Your task to perform on an android device: Is it going to rain today? Image 0: 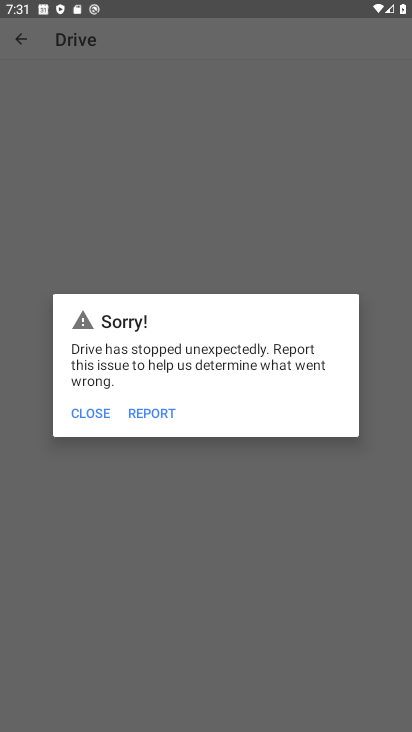
Step 0: press home button
Your task to perform on an android device: Is it going to rain today? Image 1: 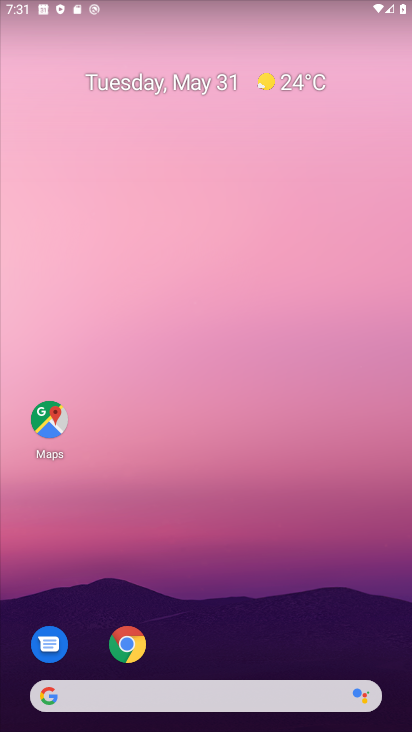
Step 1: drag from (333, 620) to (328, 133)
Your task to perform on an android device: Is it going to rain today? Image 2: 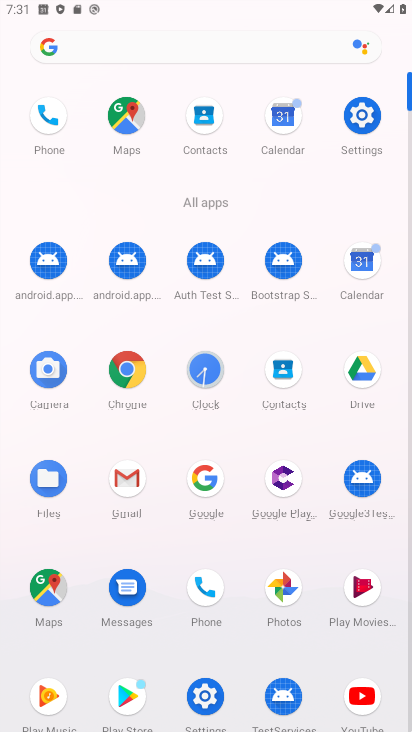
Step 2: click (134, 371)
Your task to perform on an android device: Is it going to rain today? Image 3: 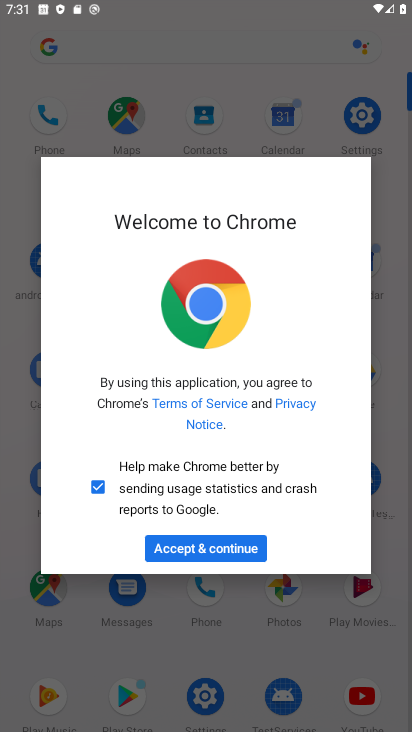
Step 3: click (225, 539)
Your task to perform on an android device: Is it going to rain today? Image 4: 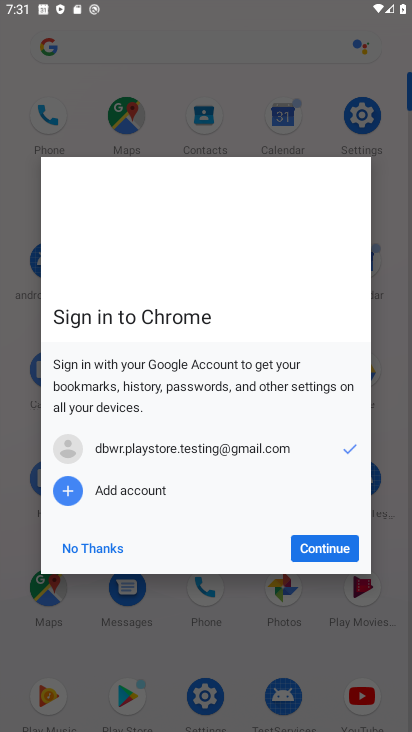
Step 4: click (327, 542)
Your task to perform on an android device: Is it going to rain today? Image 5: 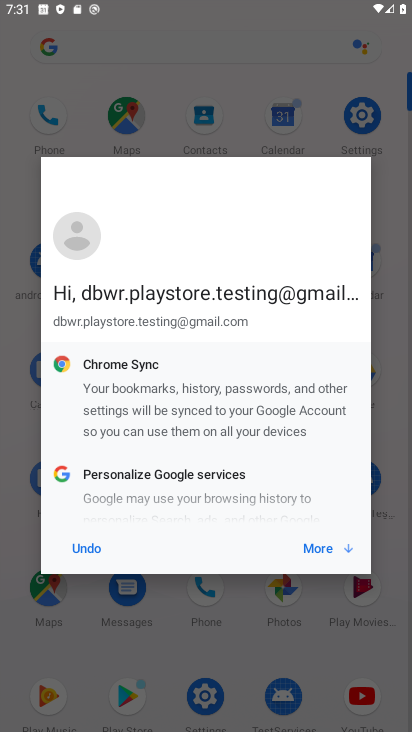
Step 5: click (321, 549)
Your task to perform on an android device: Is it going to rain today? Image 6: 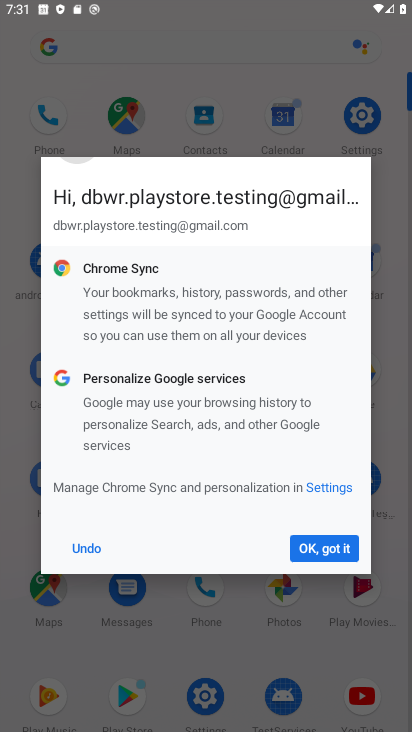
Step 6: click (321, 548)
Your task to perform on an android device: Is it going to rain today? Image 7: 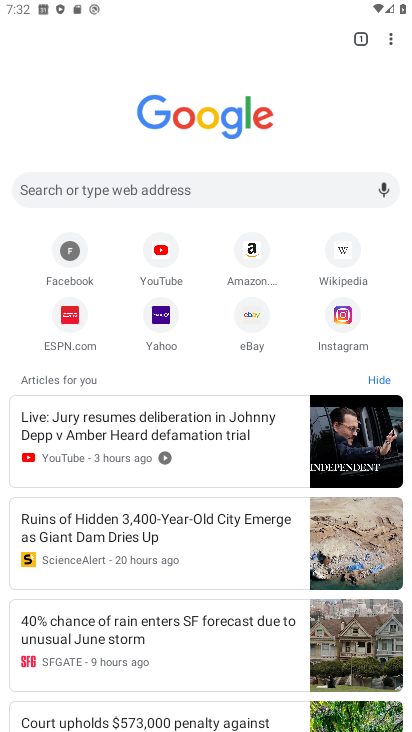
Step 7: click (313, 185)
Your task to perform on an android device: Is it going to rain today? Image 8: 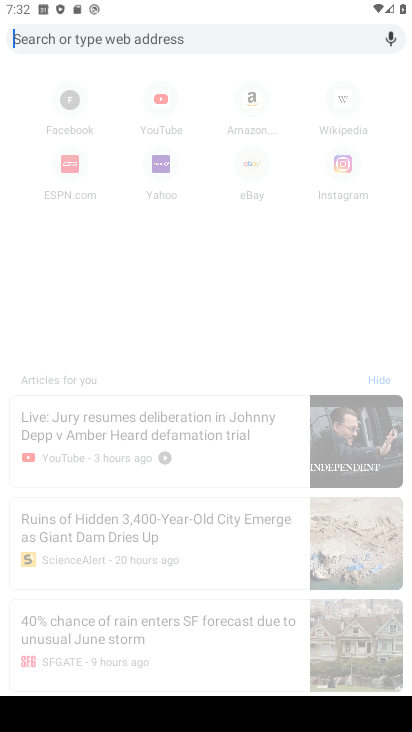
Step 8: type "is it going to rain today"
Your task to perform on an android device: Is it going to rain today? Image 9: 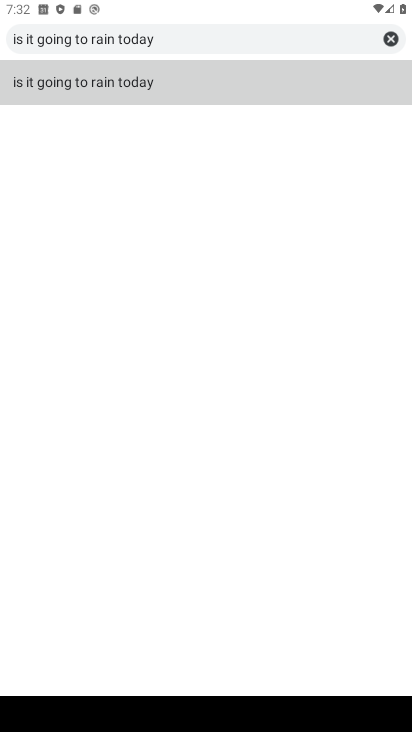
Step 9: click (77, 85)
Your task to perform on an android device: Is it going to rain today? Image 10: 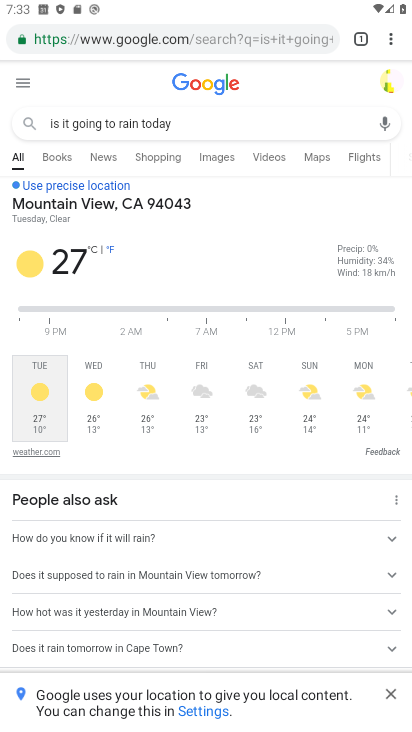
Step 10: task complete